Your task to perform on an android device: turn on notifications settings in the gmail app Image 0: 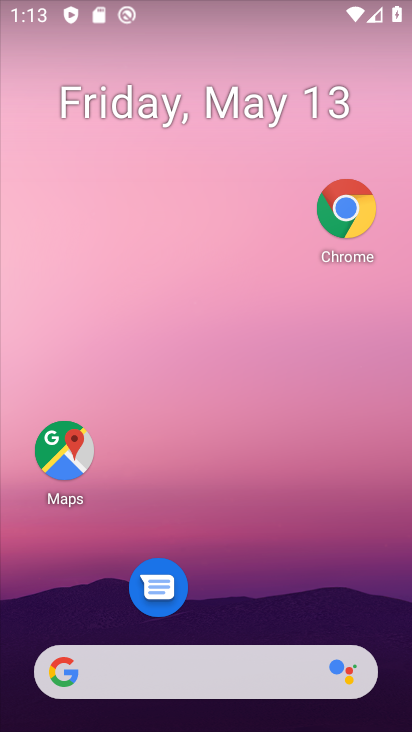
Step 0: drag from (208, 652) to (325, 76)
Your task to perform on an android device: turn on notifications settings in the gmail app Image 1: 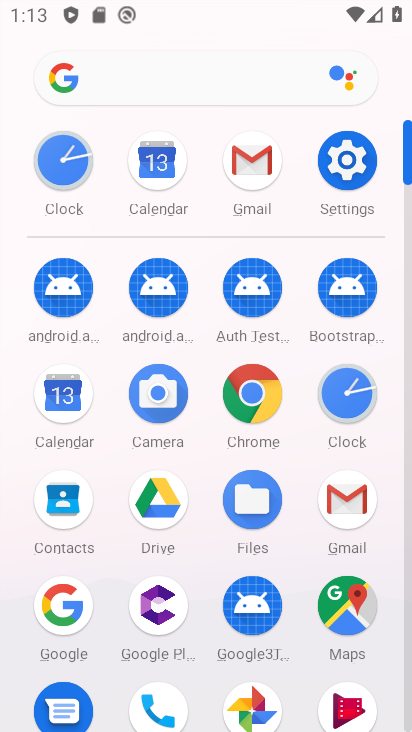
Step 1: click (254, 161)
Your task to perform on an android device: turn on notifications settings in the gmail app Image 2: 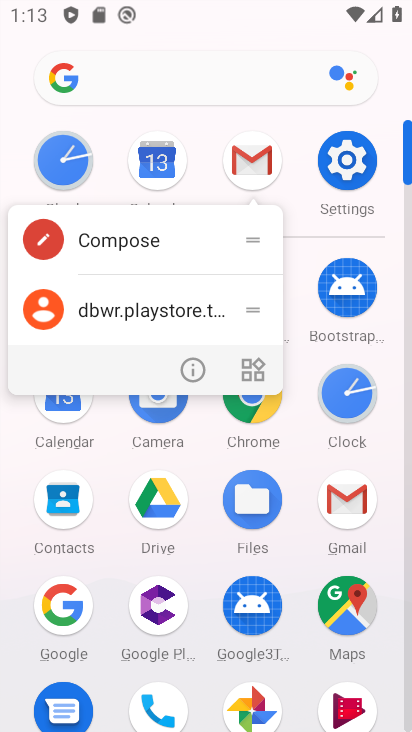
Step 2: click (187, 366)
Your task to perform on an android device: turn on notifications settings in the gmail app Image 3: 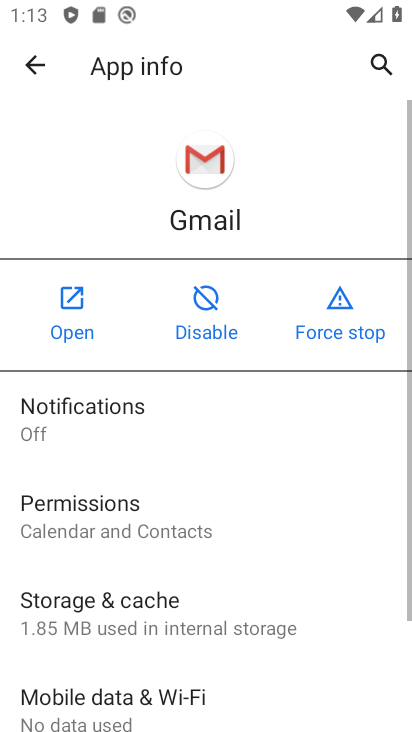
Step 3: click (99, 416)
Your task to perform on an android device: turn on notifications settings in the gmail app Image 4: 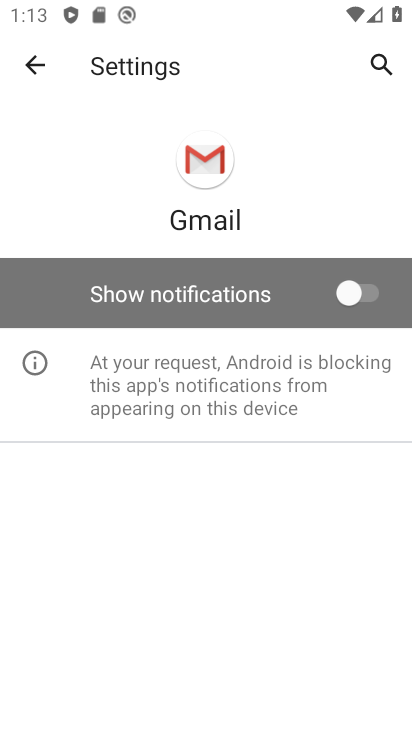
Step 4: click (352, 287)
Your task to perform on an android device: turn on notifications settings in the gmail app Image 5: 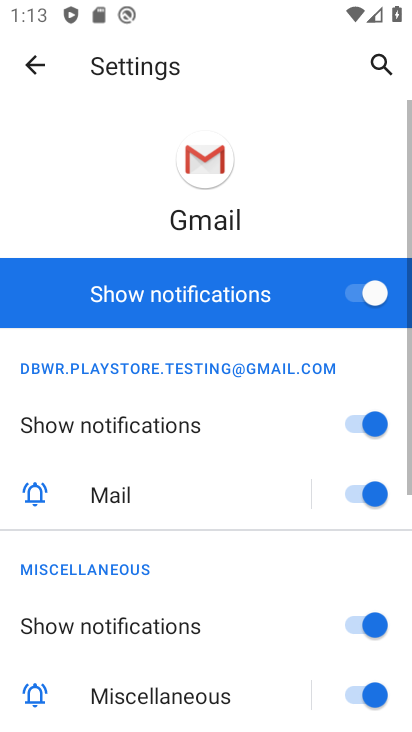
Step 5: task complete